Your task to perform on an android device: open app "Grab" Image 0: 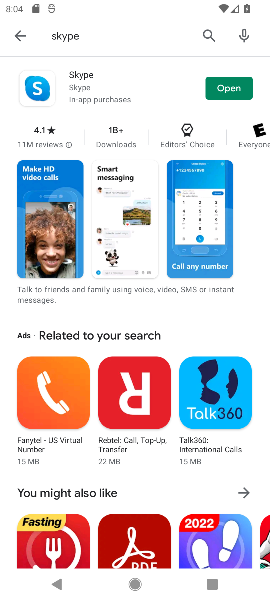
Step 0: press home button
Your task to perform on an android device: open app "Grab" Image 1: 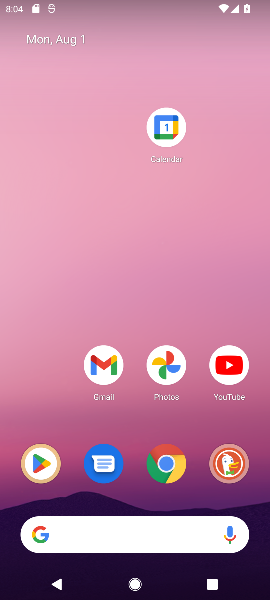
Step 1: click (39, 469)
Your task to perform on an android device: open app "Grab" Image 2: 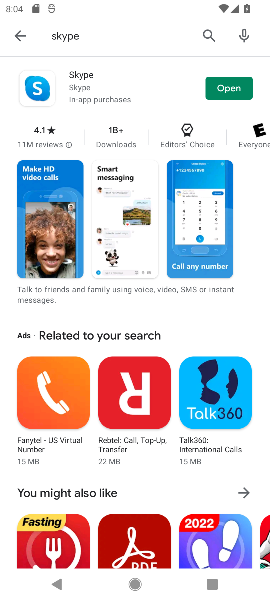
Step 2: click (214, 39)
Your task to perform on an android device: open app "Grab" Image 3: 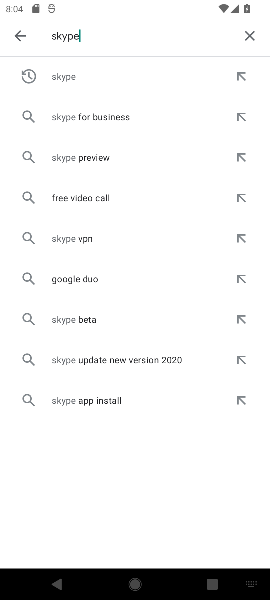
Step 3: click (248, 39)
Your task to perform on an android device: open app "Grab" Image 4: 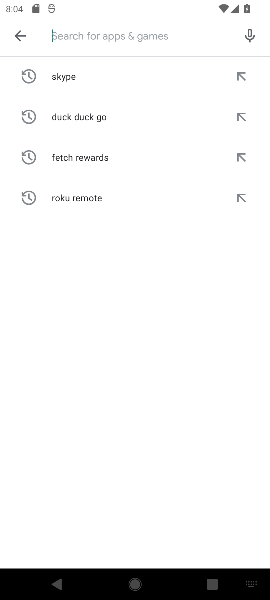
Step 4: type "grab"
Your task to perform on an android device: open app "Grab" Image 5: 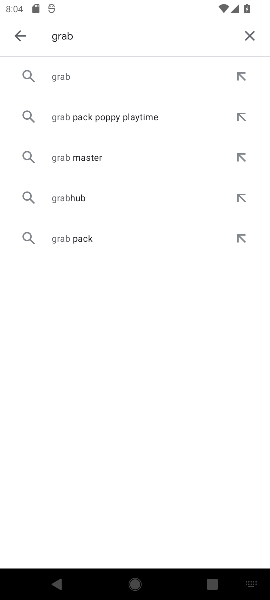
Step 5: click (146, 75)
Your task to perform on an android device: open app "Grab" Image 6: 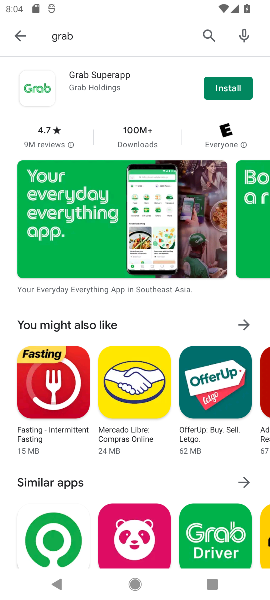
Step 6: click (231, 81)
Your task to perform on an android device: open app "Grab" Image 7: 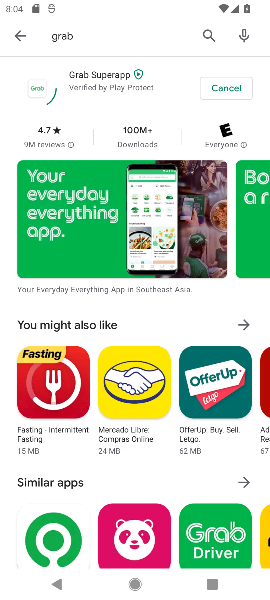
Step 7: task complete